Your task to perform on an android device: change the clock display to analog Image 0: 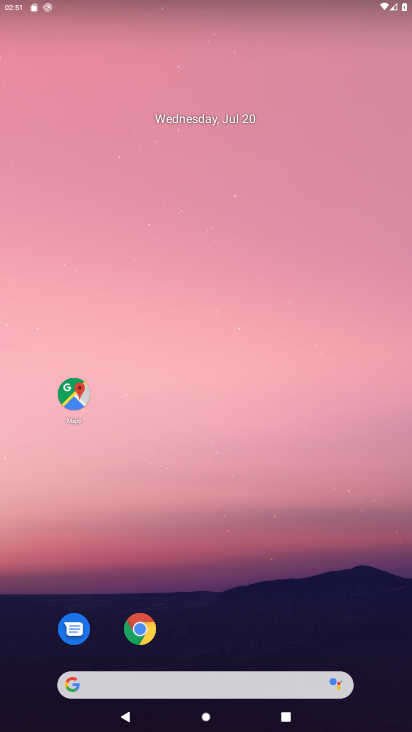
Step 0: drag from (275, 633) to (370, 145)
Your task to perform on an android device: change the clock display to analog Image 1: 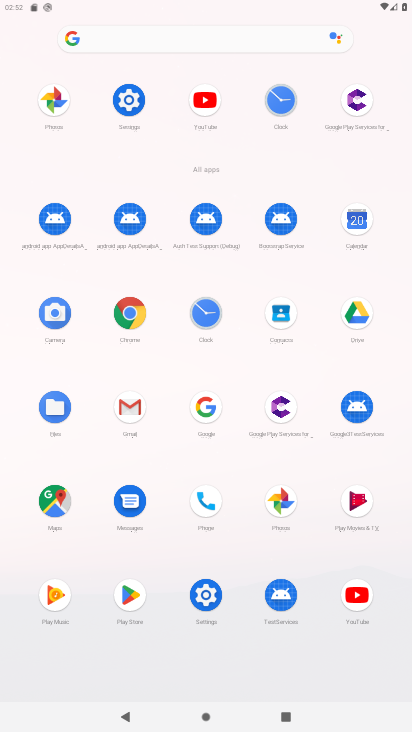
Step 1: click (209, 308)
Your task to perform on an android device: change the clock display to analog Image 2: 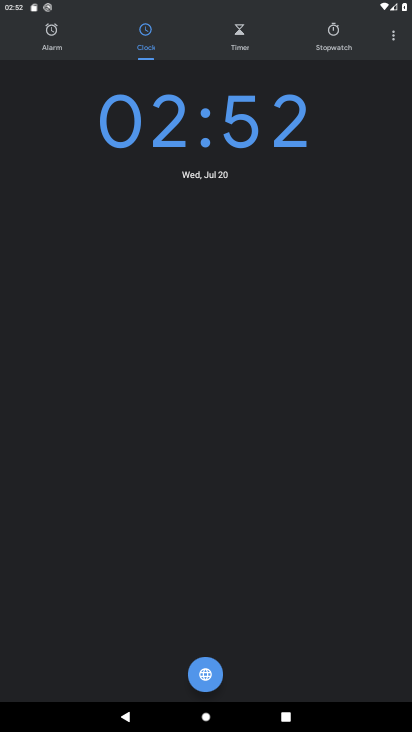
Step 2: click (384, 41)
Your task to perform on an android device: change the clock display to analog Image 3: 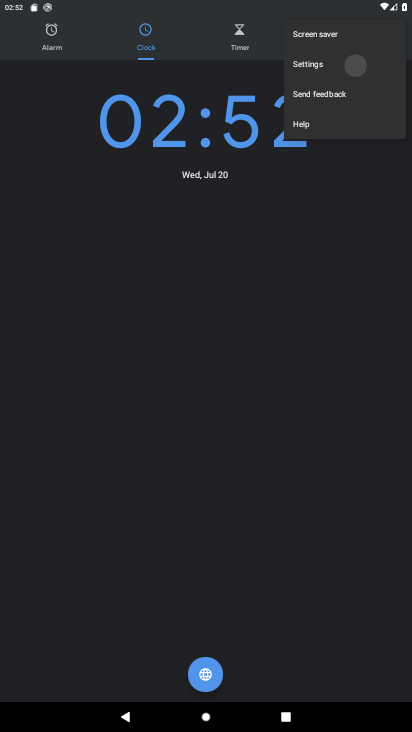
Step 3: click (384, 35)
Your task to perform on an android device: change the clock display to analog Image 4: 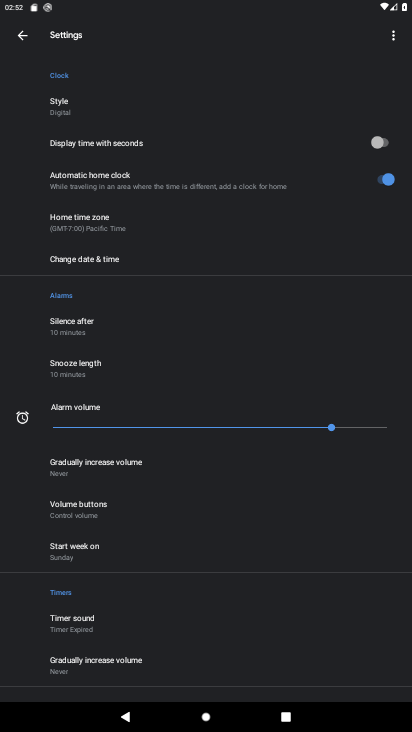
Step 4: click (297, 96)
Your task to perform on an android device: change the clock display to analog Image 5: 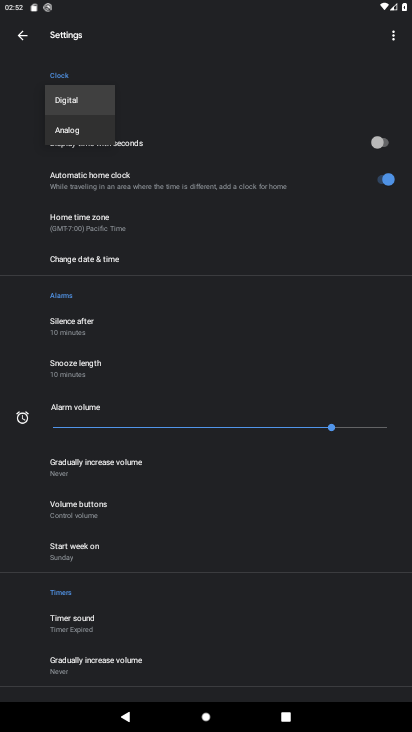
Step 5: click (89, 136)
Your task to perform on an android device: change the clock display to analog Image 6: 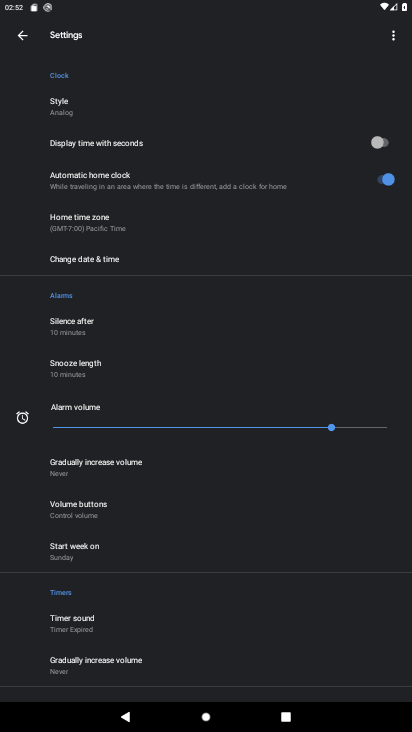
Step 6: task complete